Your task to perform on an android device: check storage Image 0: 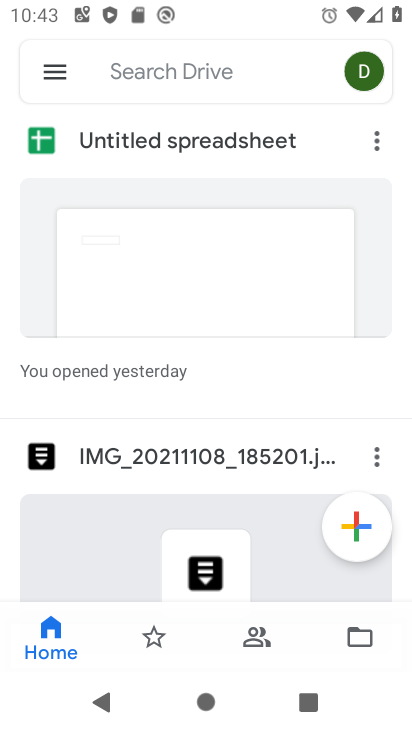
Step 0: press home button
Your task to perform on an android device: check storage Image 1: 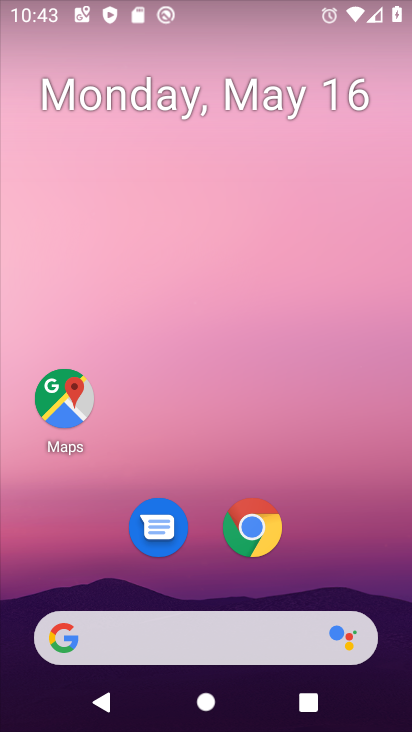
Step 1: drag from (325, 596) to (381, 12)
Your task to perform on an android device: check storage Image 2: 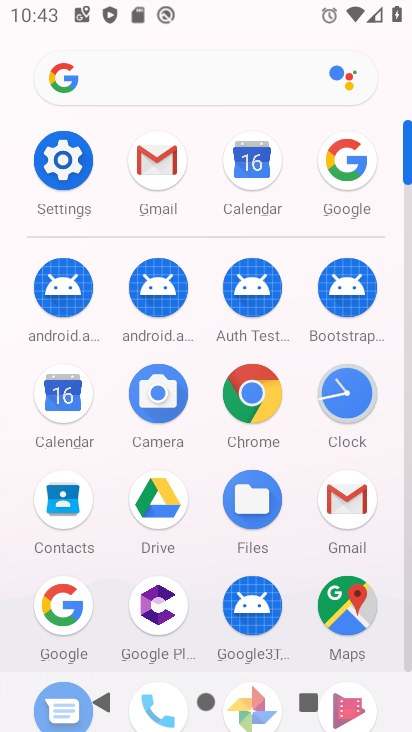
Step 2: click (63, 161)
Your task to perform on an android device: check storage Image 3: 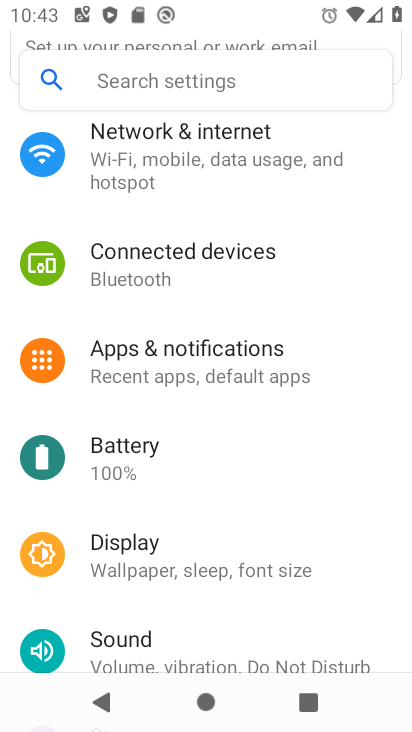
Step 3: drag from (270, 435) to (311, 159)
Your task to perform on an android device: check storage Image 4: 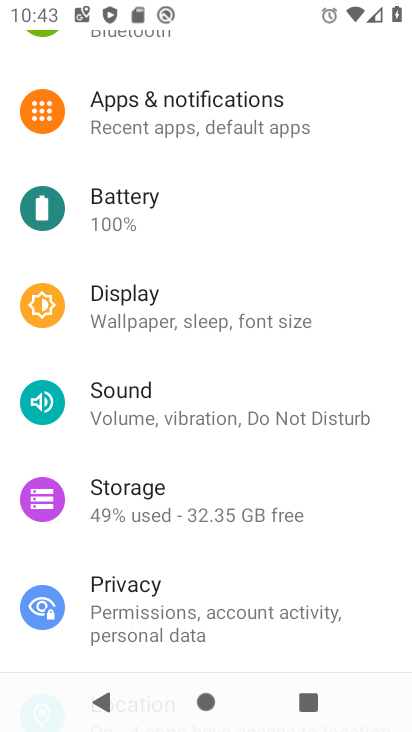
Step 4: click (147, 502)
Your task to perform on an android device: check storage Image 5: 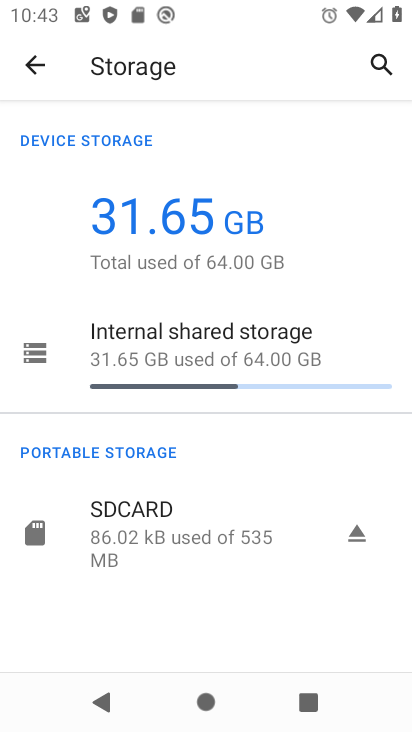
Step 5: click (175, 360)
Your task to perform on an android device: check storage Image 6: 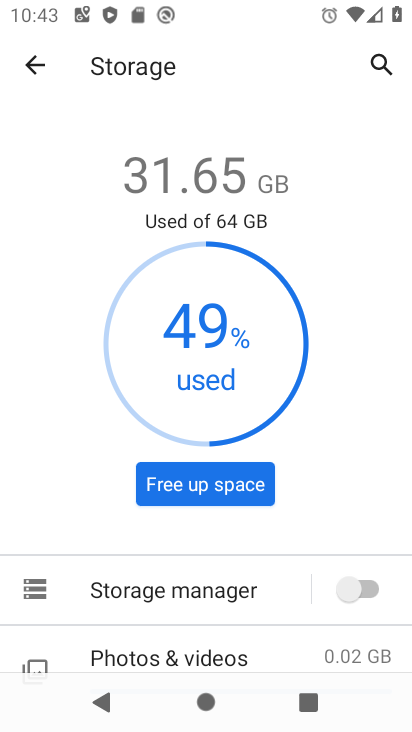
Step 6: task complete